Your task to perform on an android device: What's on my calendar tomorrow? Image 0: 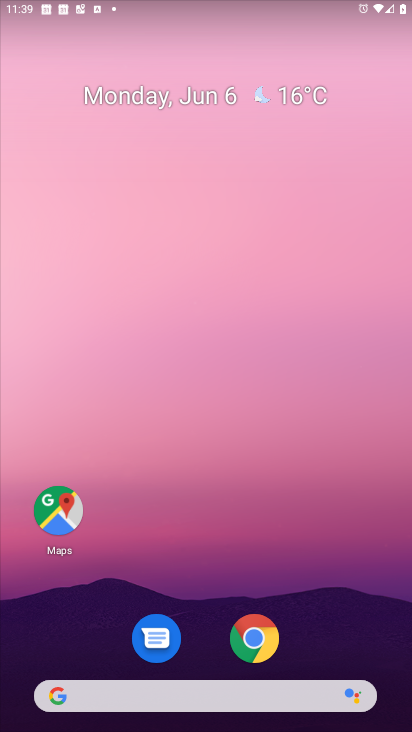
Step 0: drag from (231, 712) to (324, 105)
Your task to perform on an android device: What's on my calendar tomorrow? Image 1: 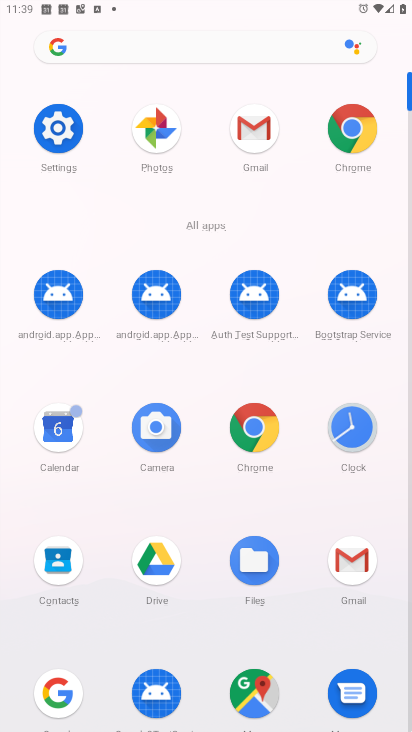
Step 1: click (55, 433)
Your task to perform on an android device: What's on my calendar tomorrow? Image 2: 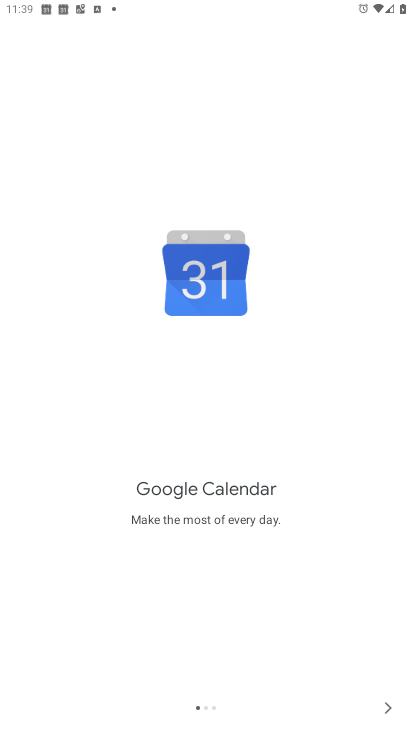
Step 2: click (389, 710)
Your task to perform on an android device: What's on my calendar tomorrow? Image 3: 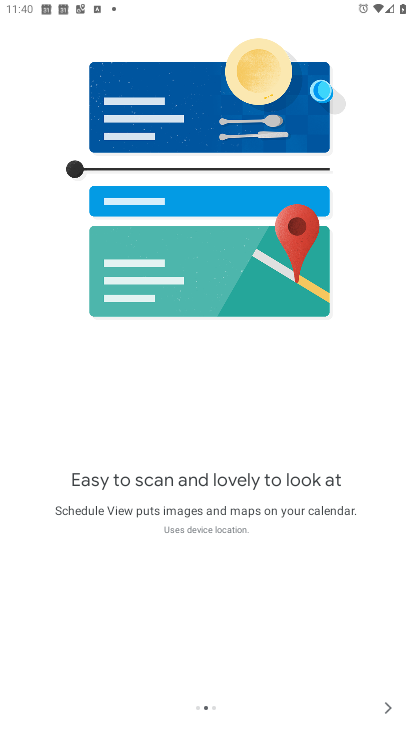
Step 3: click (387, 714)
Your task to perform on an android device: What's on my calendar tomorrow? Image 4: 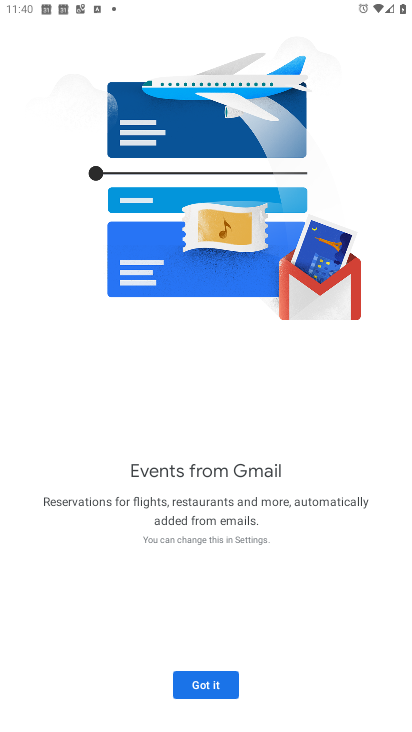
Step 4: click (217, 686)
Your task to perform on an android device: What's on my calendar tomorrow? Image 5: 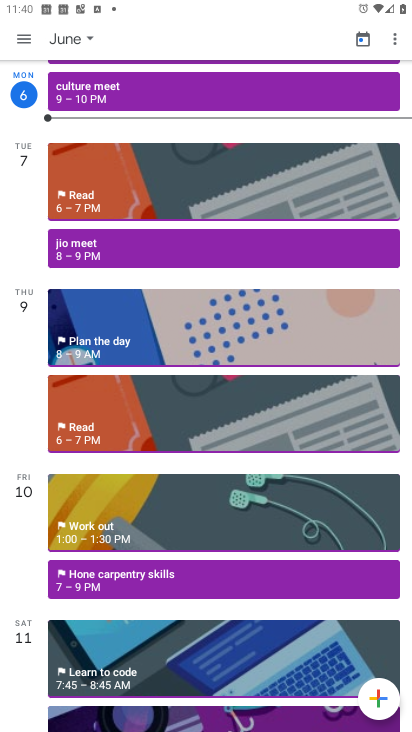
Step 5: click (15, 49)
Your task to perform on an android device: What's on my calendar tomorrow? Image 6: 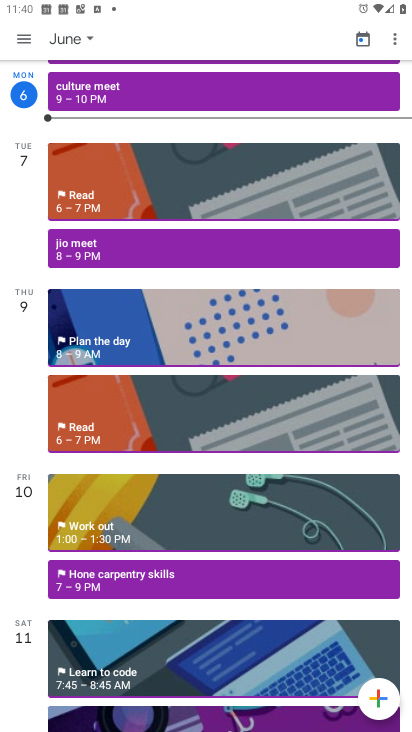
Step 6: task complete